Your task to perform on an android device: What's the weather today? Image 0: 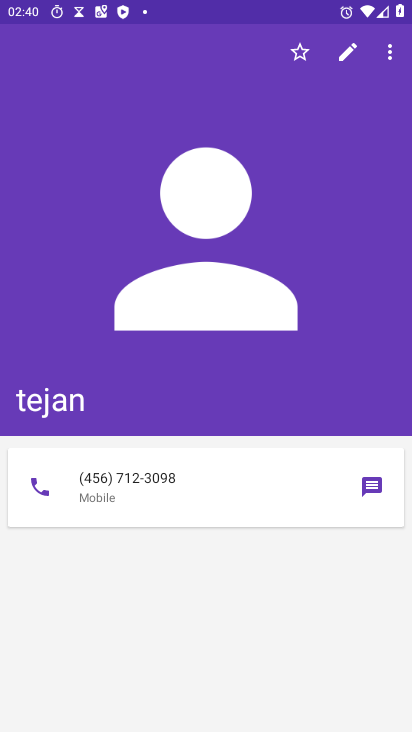
Step 0: press home button
Your task to perform on an android device: What's the weather today? Image 1: 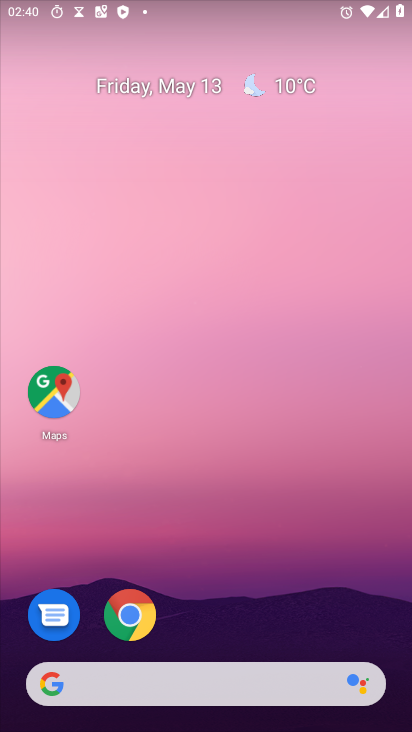
Step 1: click (137, 615)
Your task to perform on an android device: What's the weather today? Image 2: 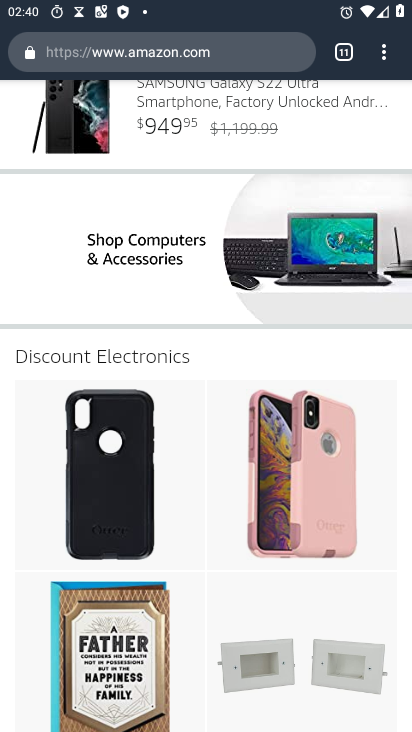
Step 2: click (348, 59)
Your task to perform on an android device: What's the weather today? Image 3: 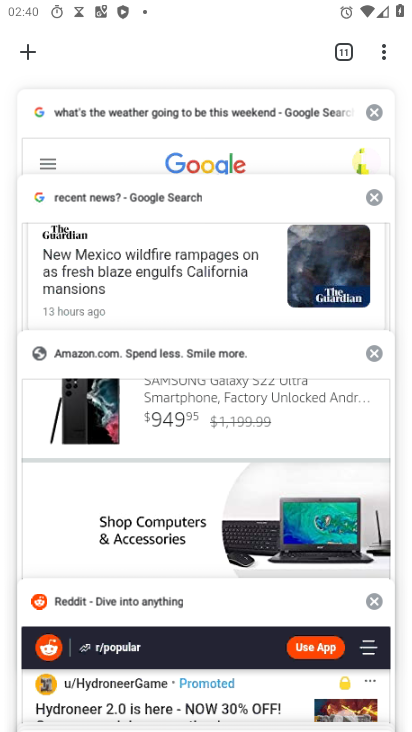
Step 3: drag from (150, 275) to (123, 118)
Your task to perform on an android device: What's the weather today? Image 4: 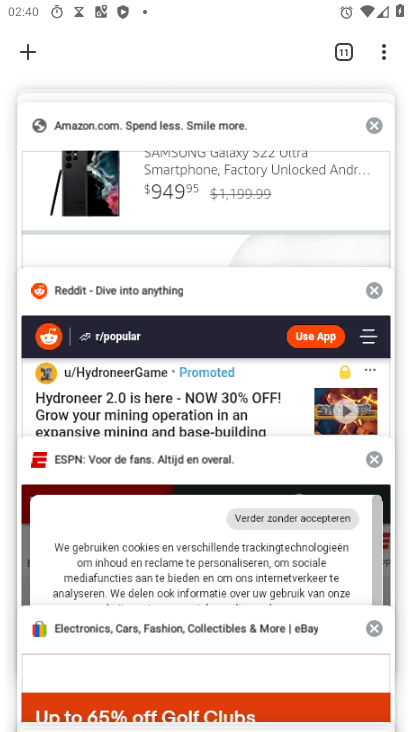
Step 4: drag from (138, 537) to (126, 194)
Your task to perform on an android device: What's the weather today? Image 5: 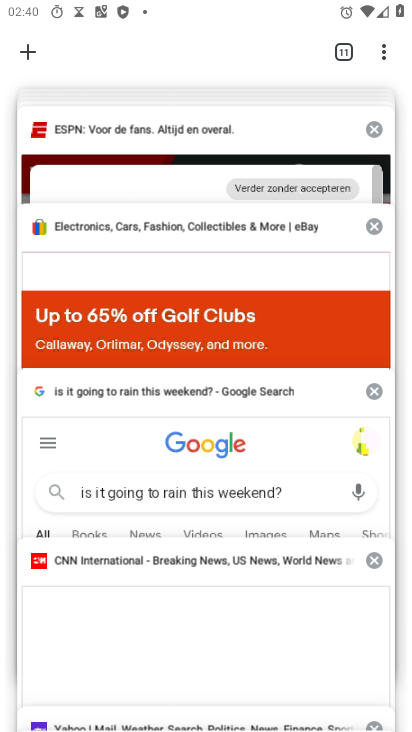
Step 5: drag from (159, 582) to (152, 253)
Your task to perform on an android device: What's the weather today? Image 6: 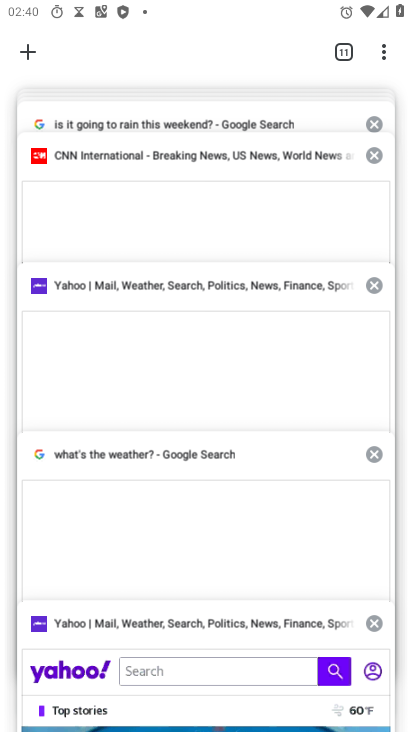
Step 6: drag from (128, 491) to (125, 277)
Your task to perform on an android device: What's the weather today? Image 7: 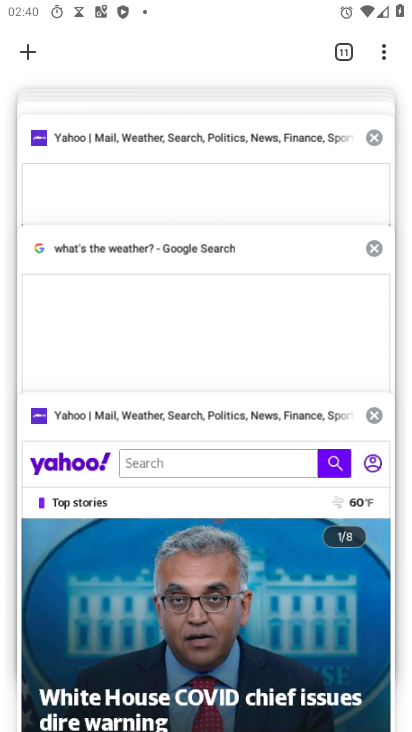
Step 7: click (19, 54)
Your task to perform on an android device: What's the weather today? Image 8: 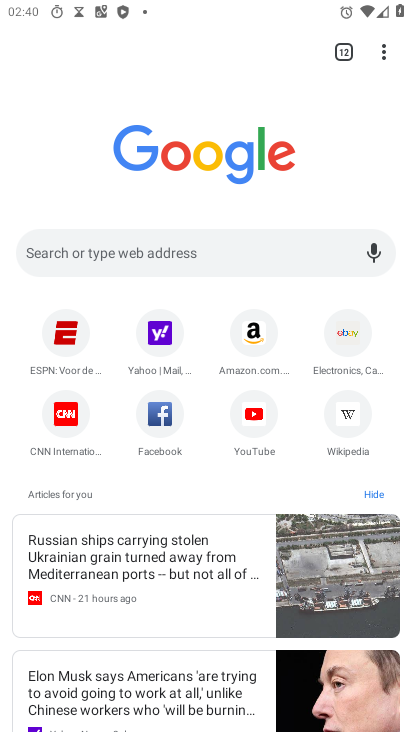
Step 8: click (85, 252)
Your task to perform on an android device: What's the weather today? Image 9: 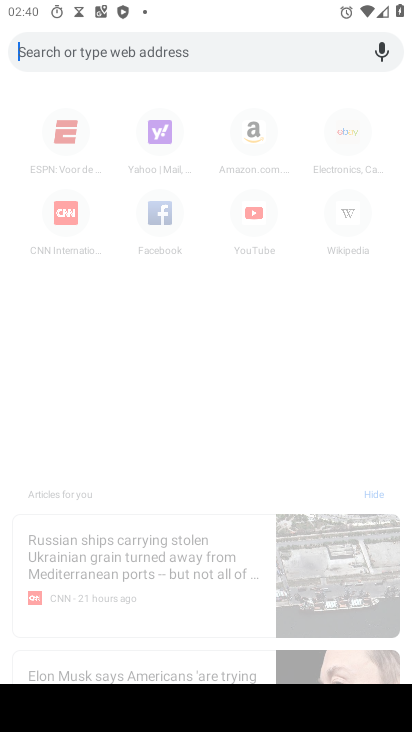
Step 9: type "what's the weather today?"
Your task to perform on an android device: What's the weather today? Image 10: 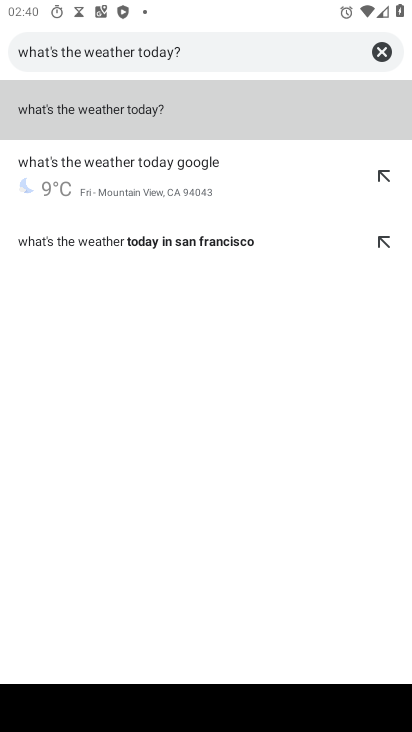
Step 10: click (108, 126)
Your task to perform on an android device: What's the weather today? Image 11: 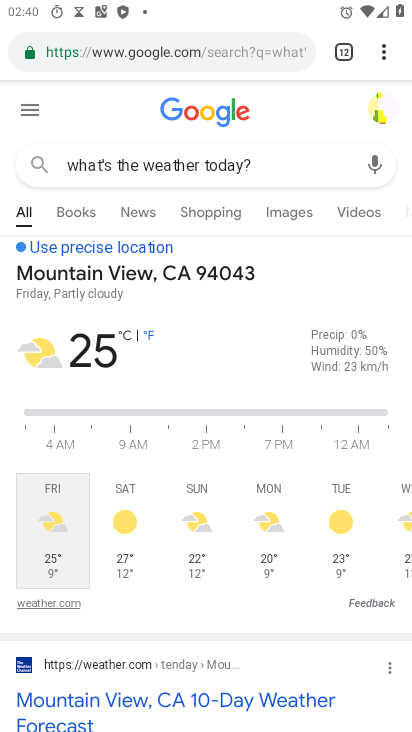
Step 11: task complete